Your task to perform on an android device: find which apps use the phone's location Image 0: 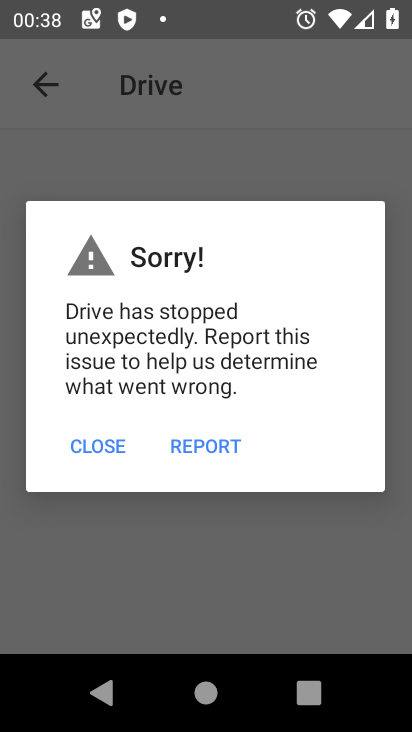
Step 0: press home button
Your task to perform on an android device: find which apps use the phone's location Image 1: 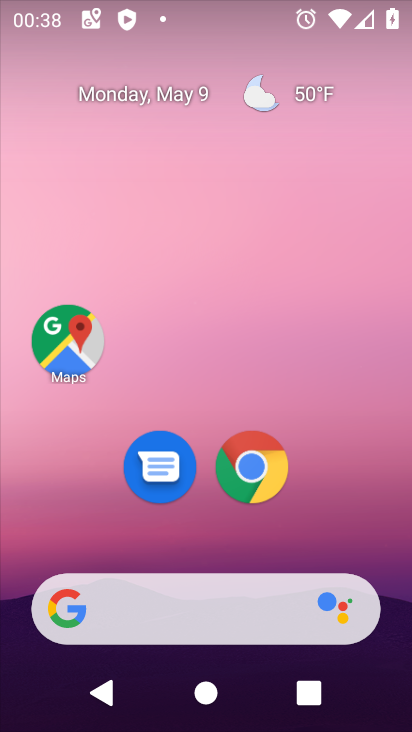
Step 1: drag from (201, 549) to (224, 3)
Your task to perform on an android device: find which apps use the phone's location Image 2: 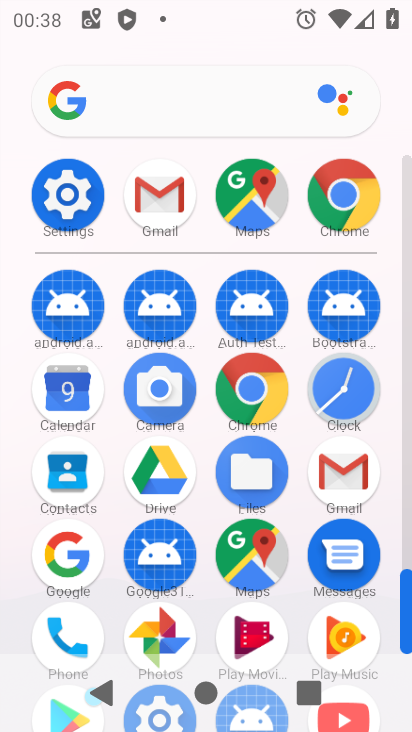
Step 2: click (65, 189)
Your task to perform on an android device: find which apps use the phone's location Image 3: 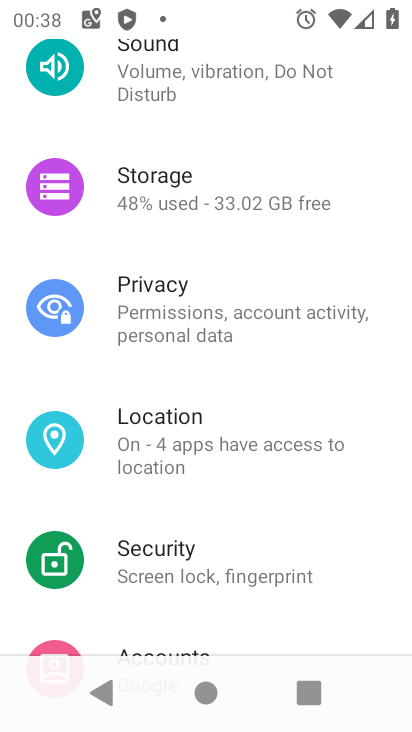
Step 3: click (151, 421)
Your task to perform on an android device: find which apps use the phone's location Image 4: 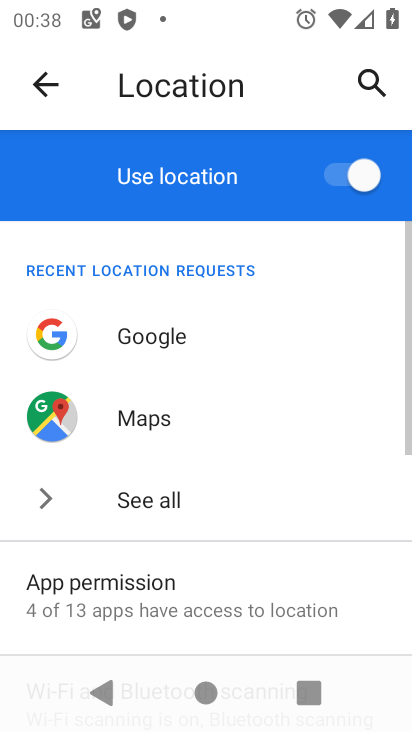
Step 4: click (136, 602)
Your task to perform on an android device: find which apps use the phone's location Image 5: 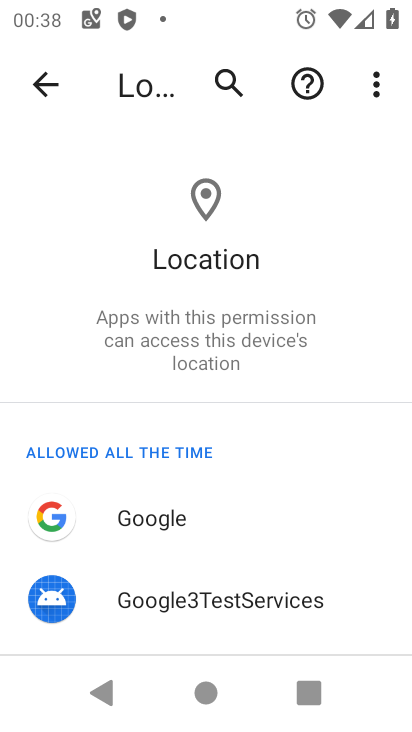
Step 5: task complete